Your task to perform on an android device: set an alarm Image 0: 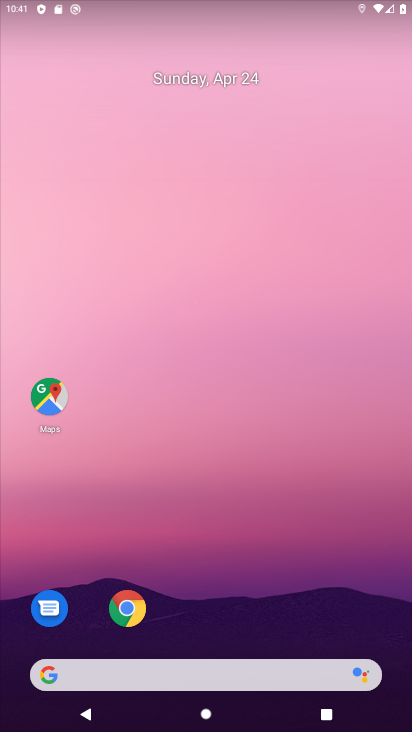
Step 0: drag from (374, 631) to (331, 81)
Your task to perform on an android device: set an alarm Image 1: 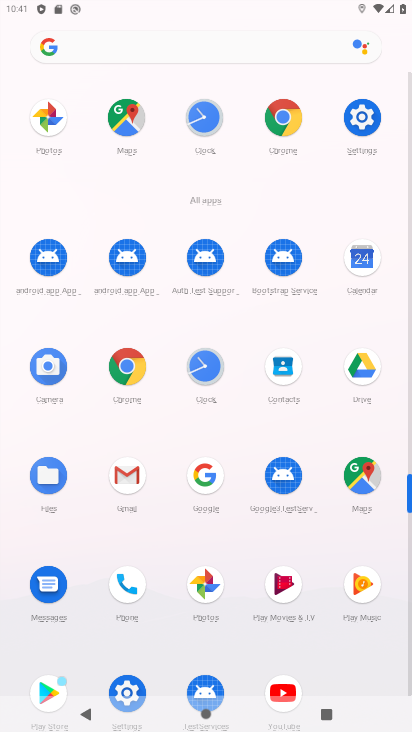
Step 1: click (411, 680)
Your task to perform on an android device: set an alarm Image 2: 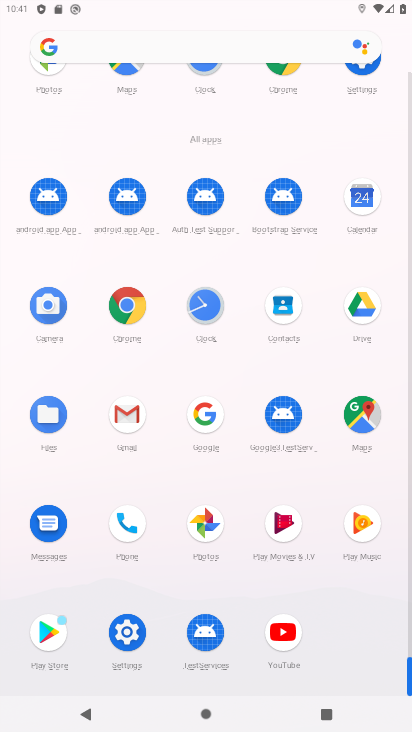
Step 2: click (201, 302)
Your task to perform on an android device: set an alarm Image 3: 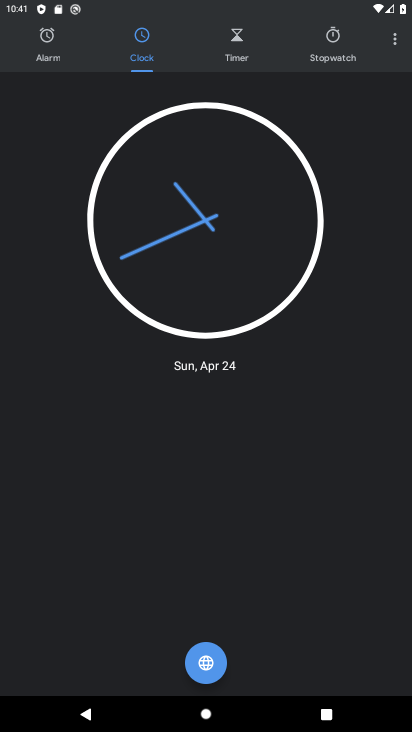
Step 3: click (50, 43)
Your task to perform on an android device: set an alarm Image 4: 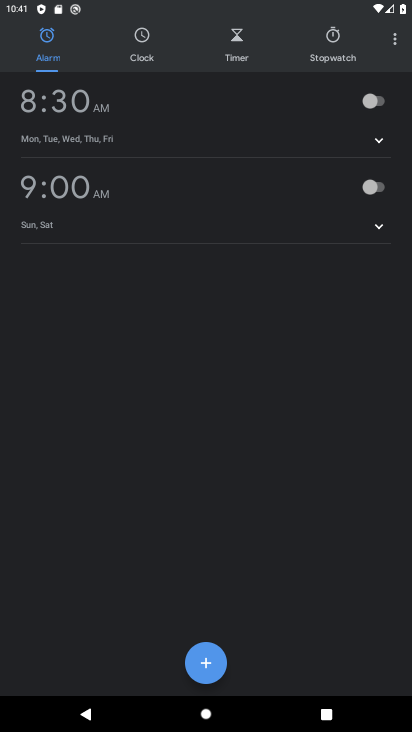
Step 4: click (42, 104)
Your task to perform on an android device: set an alarm Image 5: 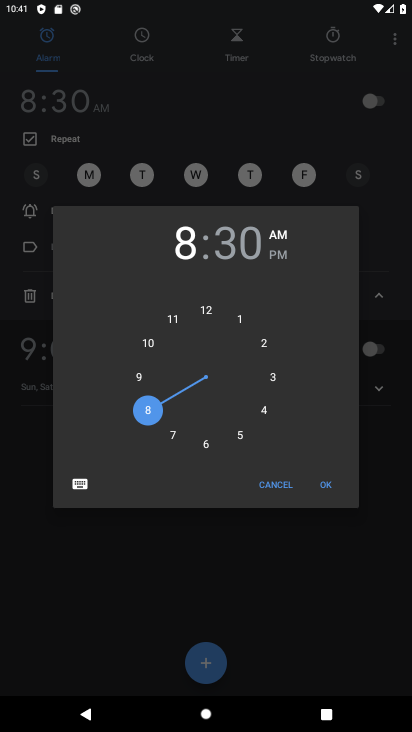
Step 5: click (208, 447)
Your task to perform on an android device: set an alarm Image 6: 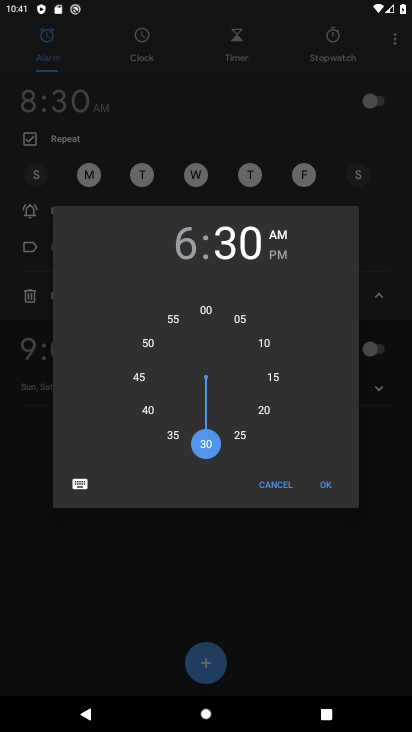
Step 6: click (270, 373)
Your task to perform on an android device: set an alarm Image 7: 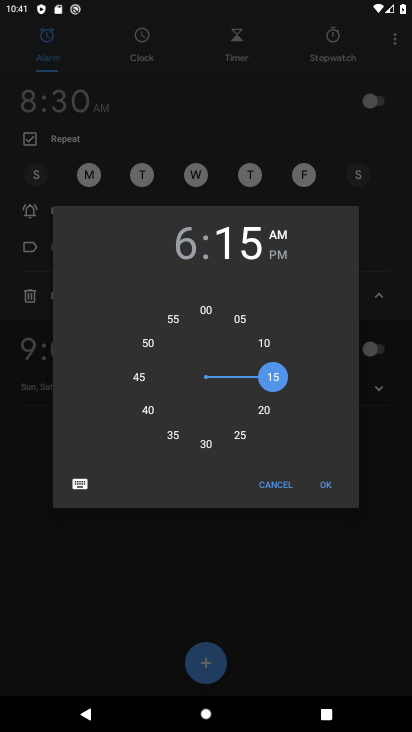
Step 7: click (325, 487)
Your task to perform on an android device: set an alarm Image 8: 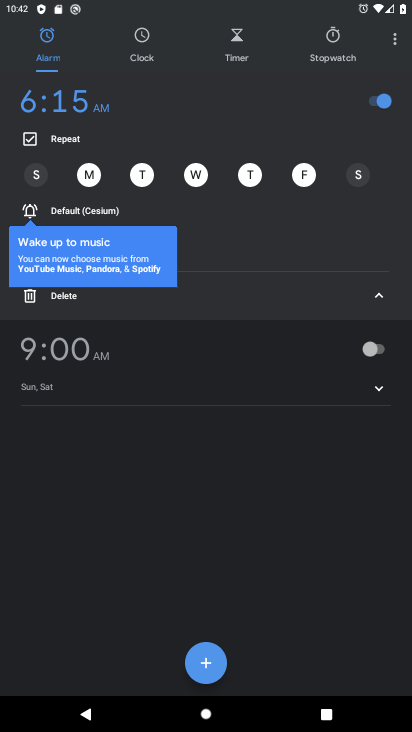
Step 8: click (358, 176)
Your task to perform on an android device: set an alarm Image 9: 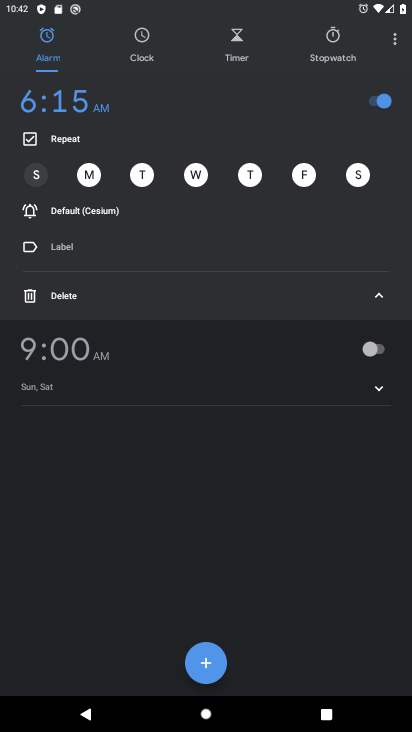
Step 9: click (376, 293)
Your task to perform on an android device: set an alarm Image 10: 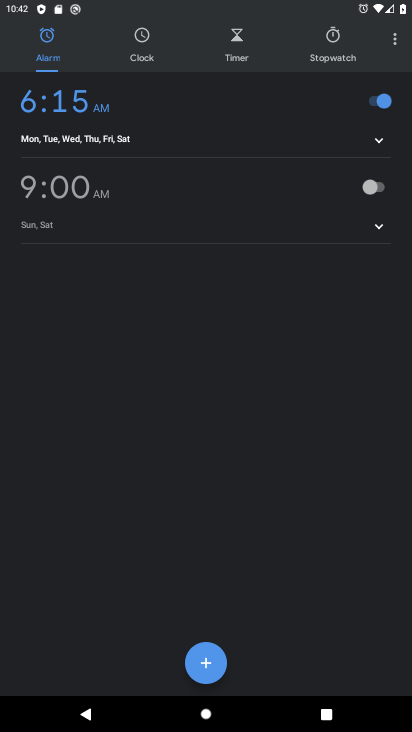
Step 10: task complete